Your task to perform on an android device: open app "Facebook Lite" Image 0: 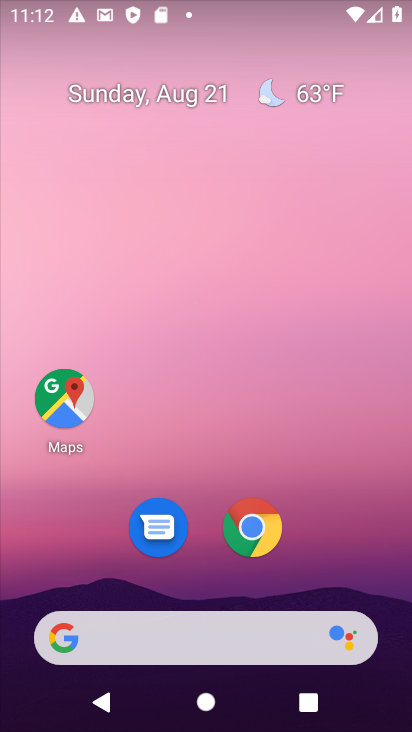
Step 0: drag from (177, 623) to (160, 115)
Your task to perform on an android device: open app "Facebook Lite" Image 1: 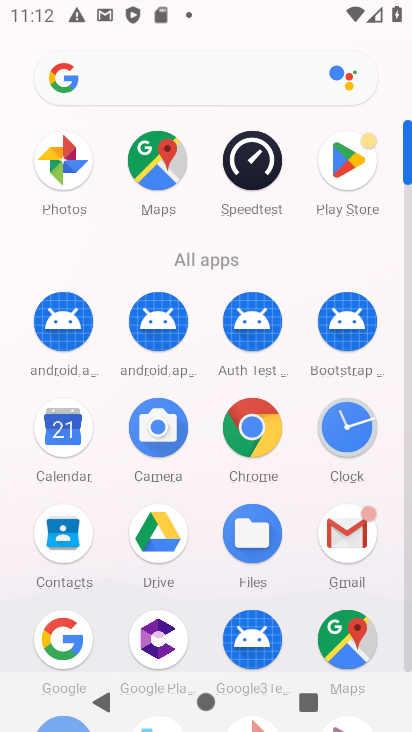
Step 1: click (358, 117)
Your task to perform on an android device: open app "Facebook Lite" Image 2: 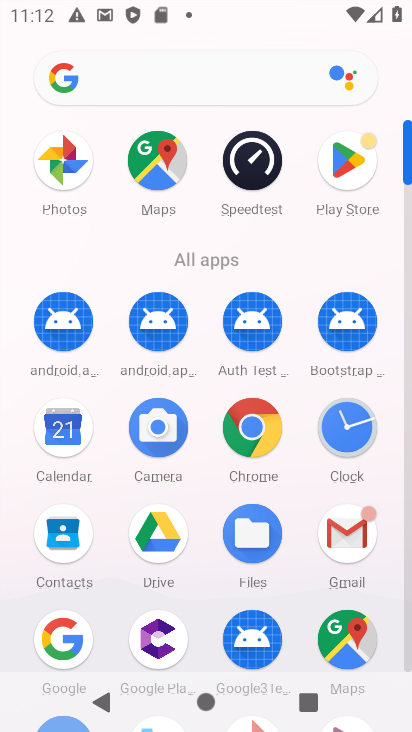
Step 2: click (337, 144)
Your task to perform on an android device: open app "Facebook Lite" Image 3: 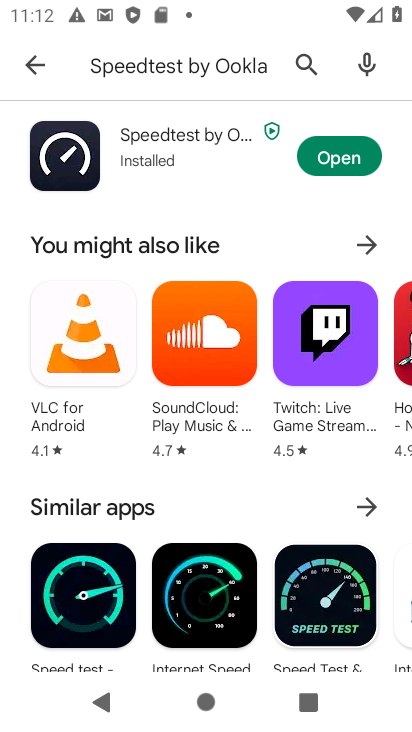
Step 3: press back button
Your task to perform on an android device: open app "Facebook Lite" Image 4: 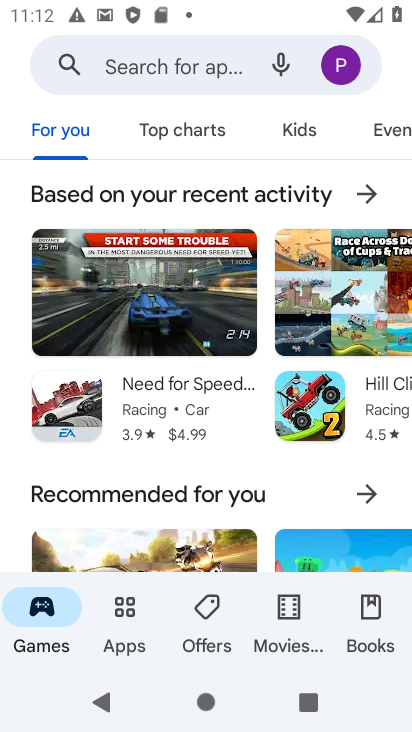
Step 4: click (184, 52)
Your task to perform on an android device: open app "Facebook Lite" Image 5: 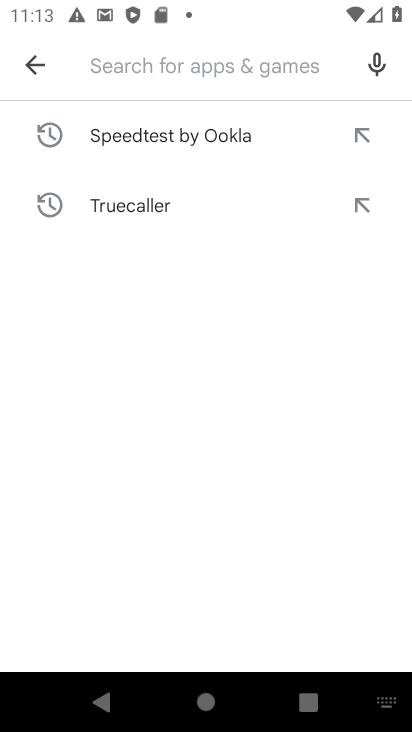
Step 5: type "Facebook Lite"
Your task to perform on an android device: open app "Facebook Lite" Image 6: 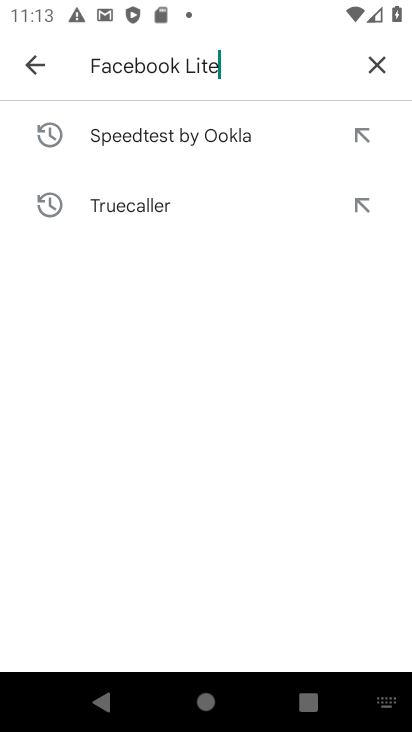
Step 6: press enter
Your task to perform on an android device: open app "Facebook Lite" Image 7: 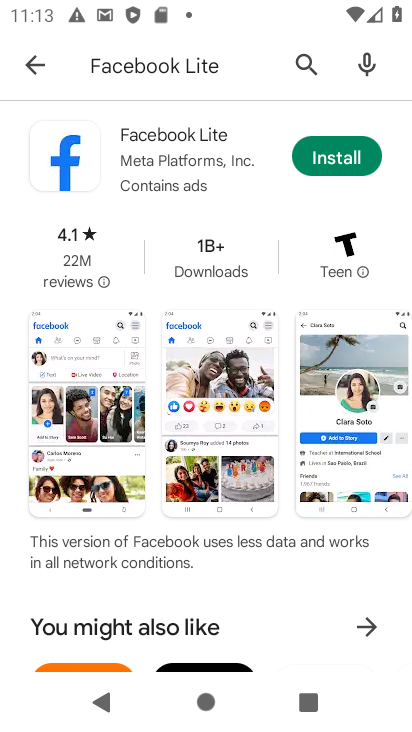
Step 7: task complete